Your task to perform on an android device: toggle translation in the chrome app Image 0: 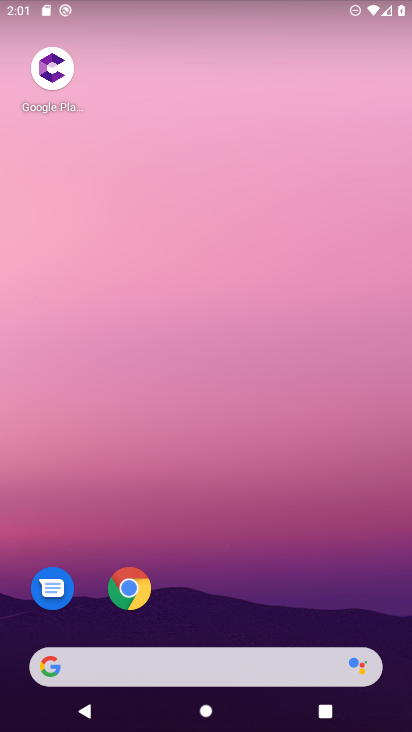
Step 0: click (142, 604)
Your task to perform on an android device: toggle translation in the chrome app Image 1: 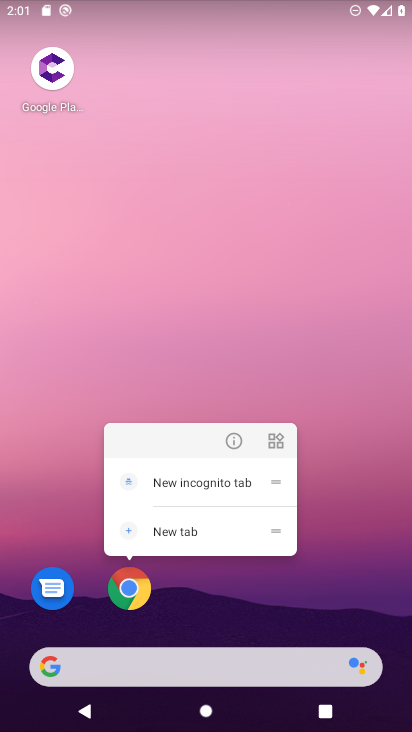
Step 1: click (135, 588)
Your task to perform on an android device: toggle translation in the chrome app Image 2: 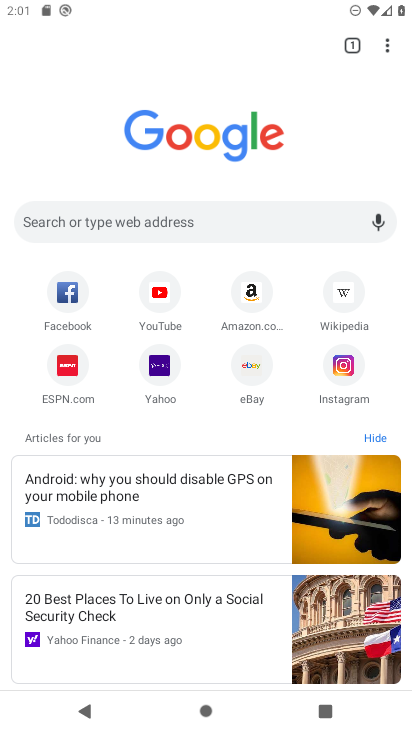
Step 2: click (395, 47)
Your task to perform on an android device: toggle translation in the chrome app Image 3: 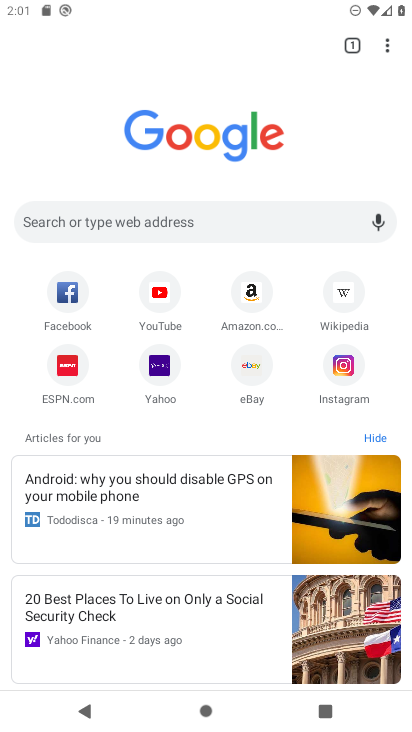
Step 3: drag from (395, 47) to (285, 392)
Your task to perform on an android device: toggle translation in the chrome app Image 4: 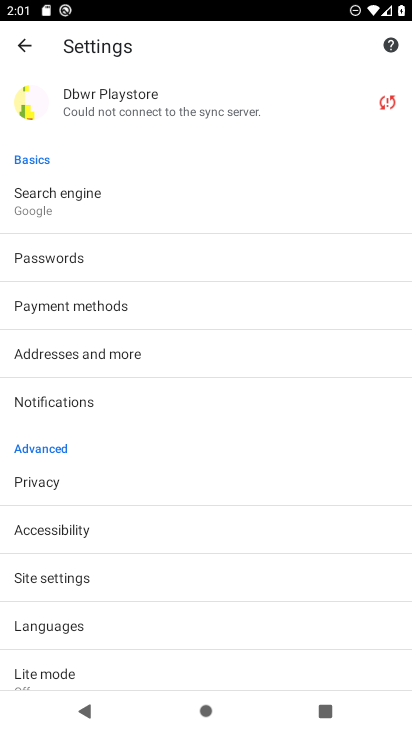
Step 4: click (91, 624)
Your task to perform on an android device: toggle translation in the chrome app Image 5: 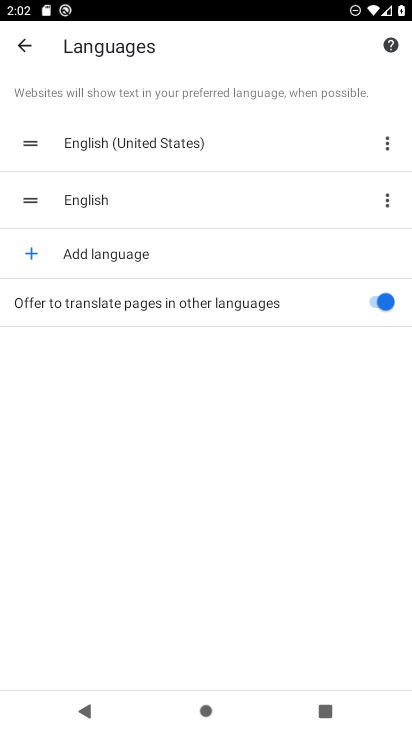
Step 5: click (369, 300)
Your task to perform on an android device: toggle translation in the chrome app Image 6: 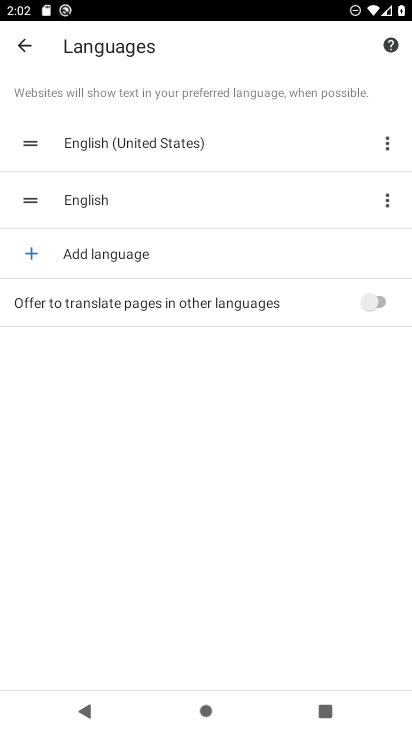
Step 6: task complete